Your task to perform on an android device: toggle priority inbox in the gmail app Image 0: 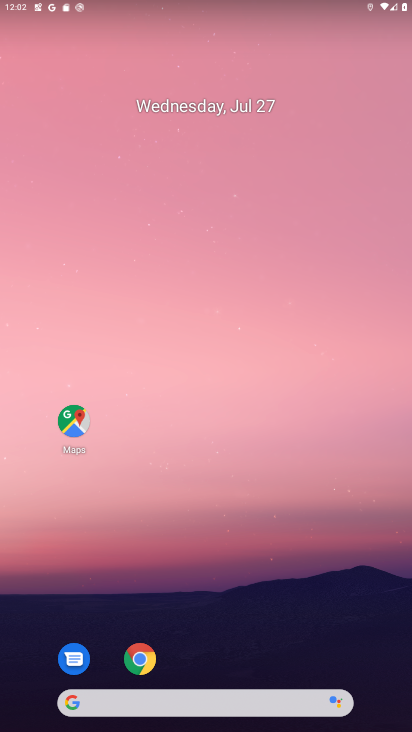
Step 0: drag from (270, 649) to (278, 139)
Your task to perform on an android device: toggle priority inbox in the gmail app Image 1: 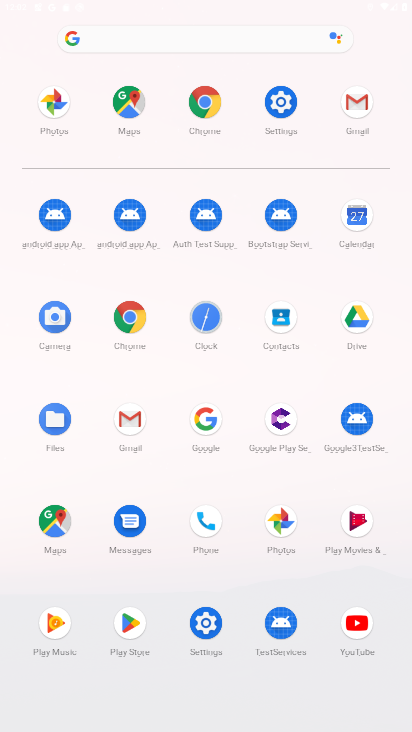
Step 1: click (119, 414)
Your task to perform on an android device: toggle priority inbox in the gmail app Image 2: 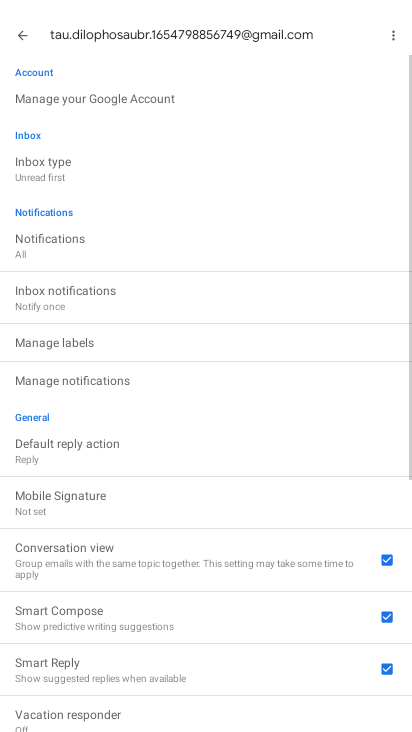
Step 2: press back button
Your task to perform on an android device: toggle priority inbox in the gmail app Image 3: 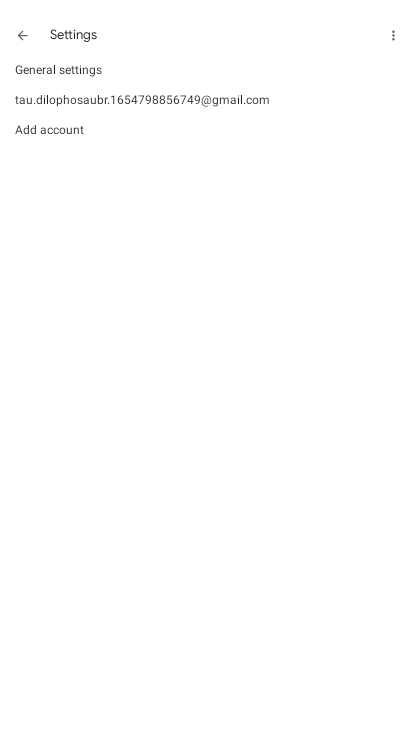
Step 3: press back button
Your task to perform on an android device: toggle priority inbox in the gmail app Image 4: 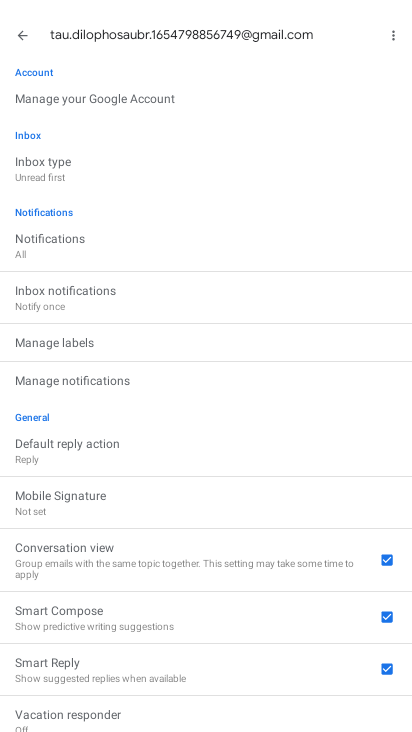
Step 4: click (78, 171)
Your task to perform on an android device: toggle priority inbox in the gmail app Image 5: 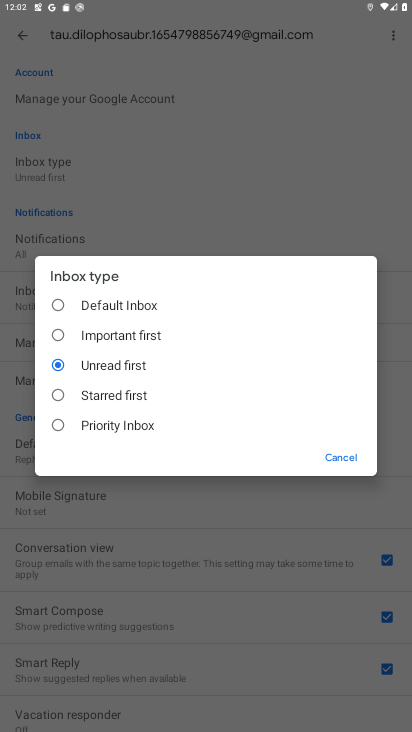
Step 5: click (67, 421)
Your task to perform on an android device: toggle priority inbox in the gmail app Image 6: 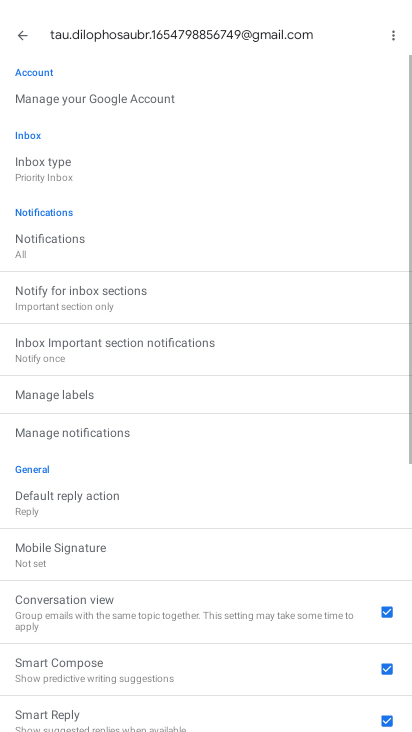
Step 6: task complete